Your task to perform on an android device: Open the web browser Image 0: 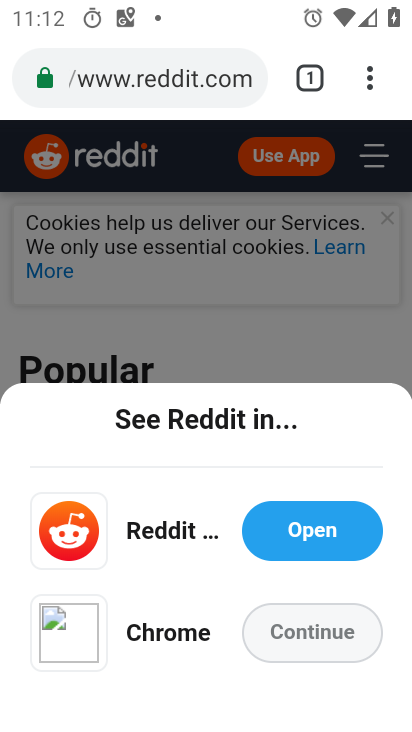
Step 0: task complete